Your task to perform on an android device: set an alarm Image 0: 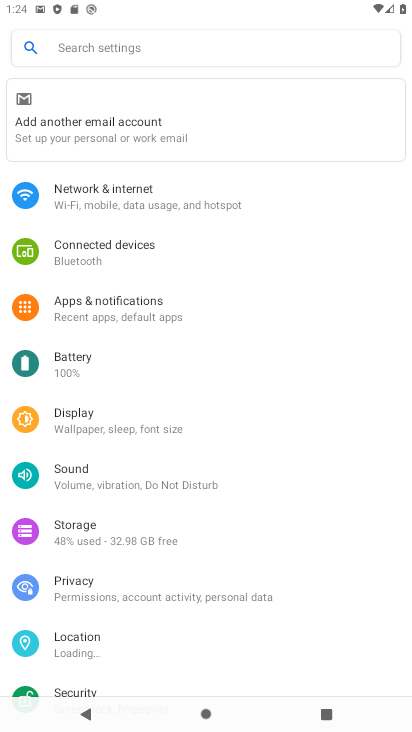
Step 0: press home button
Your task to perform on an android device: set an alarm Image 1: 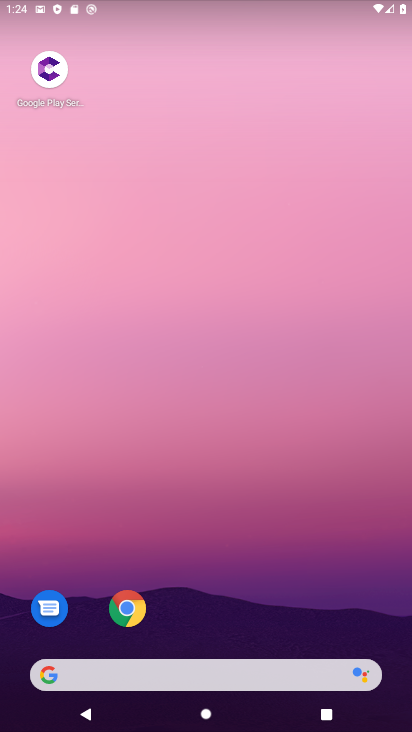
Step 1: drag from (247, 549) to (258, 60)
Your task to perform on an android device: set an alarm Image 2: 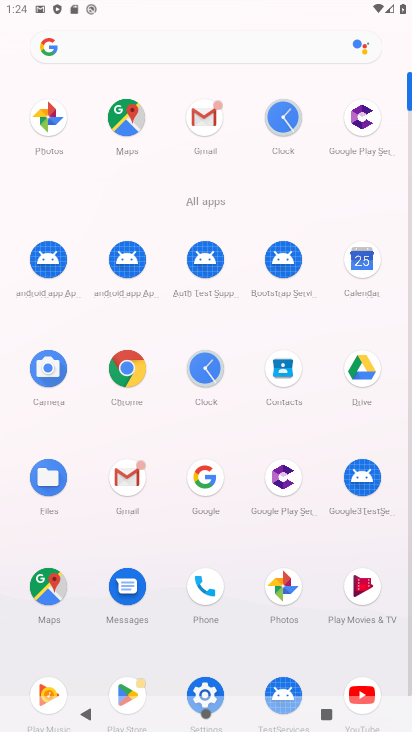
Step 2: click (207, 365)
Your task to perform on an android device: set an alarm Image 3: 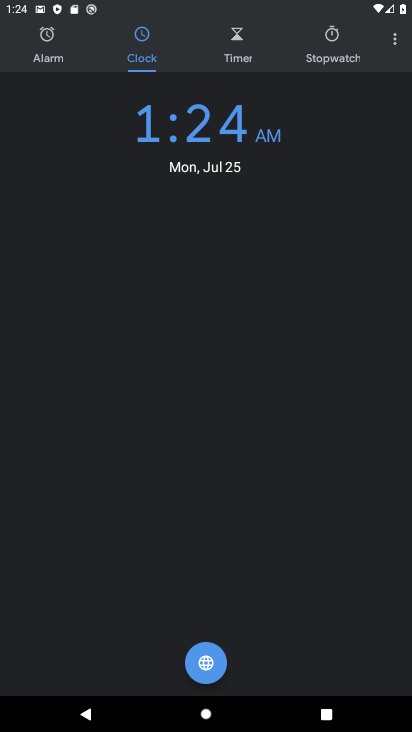
Step 3: click (67, 56)
Your task to perform on an android device: set an alarm Image 4: 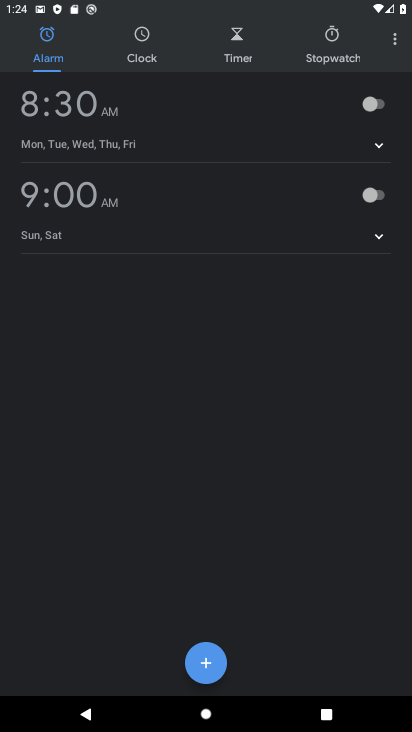
Step 4: click (205, 657)
Your task to perform on an android device: set an alarm Image 5: 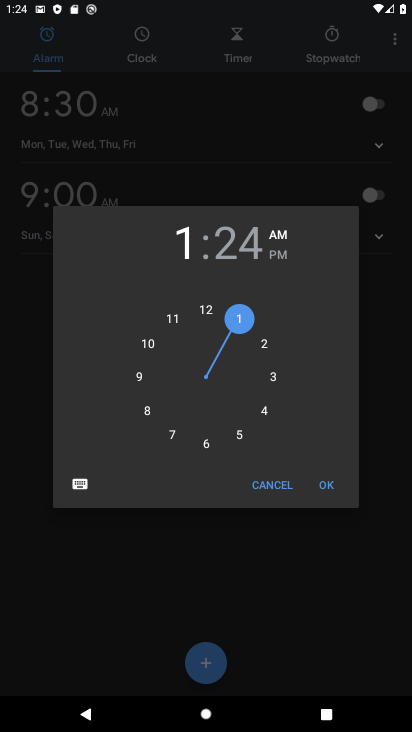
Step 5: click (330, 491)
Your task to perform on an android device: set an alarm Image 6: 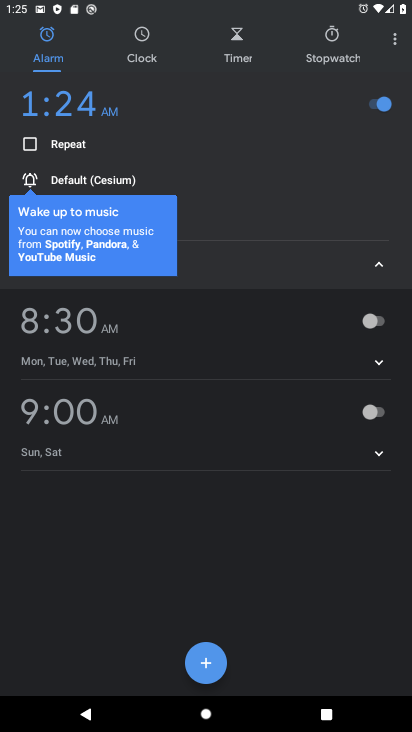
Step 6: task complete